Your task to perform on an android device: turn off sleep mode Image 0: 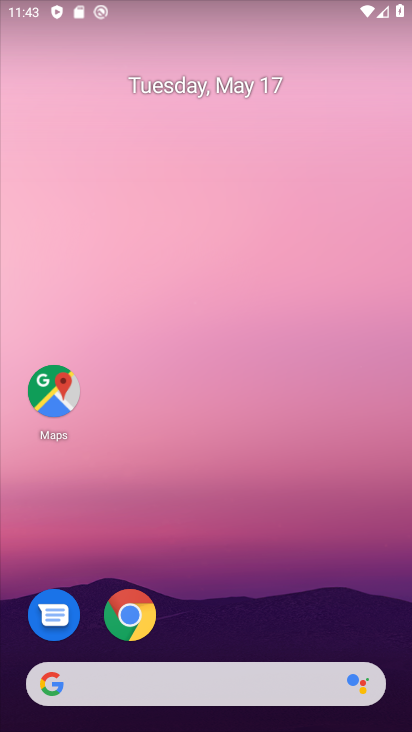
Step 0: drag from (223, 689) to (281, 135)
Your task to perform on an android device: turn off sleep mode Image 1: 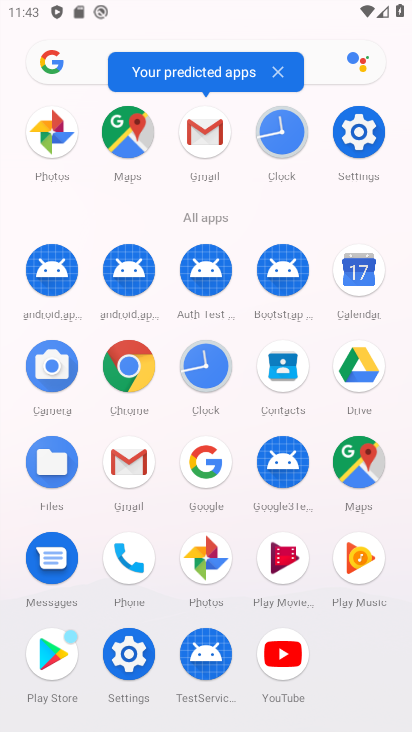
Step 1: click (349, 161)
Your task to perform on an android device: turn off sleep mode Image 2: 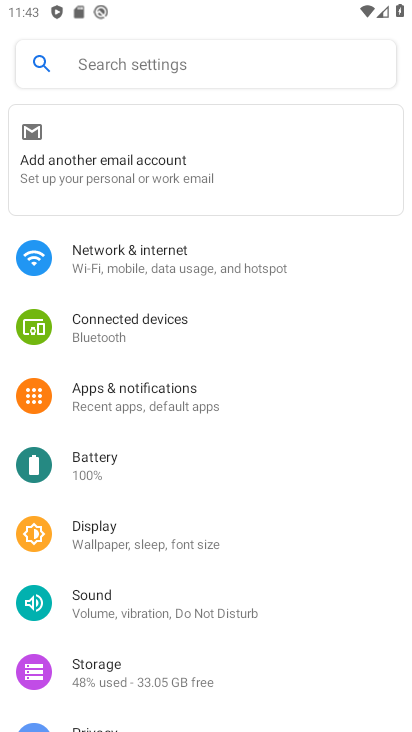
Step 2: click (176, 59)
Your task to perform on an android device: turn off sleep mode Image 3: 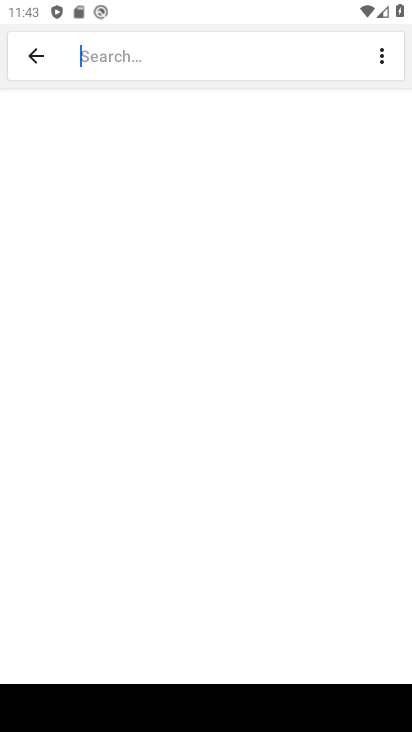
Step 3: drag from (374, 717) to (382, 648)
Your task to perform on an android device: turn off sleep mode Image 4: 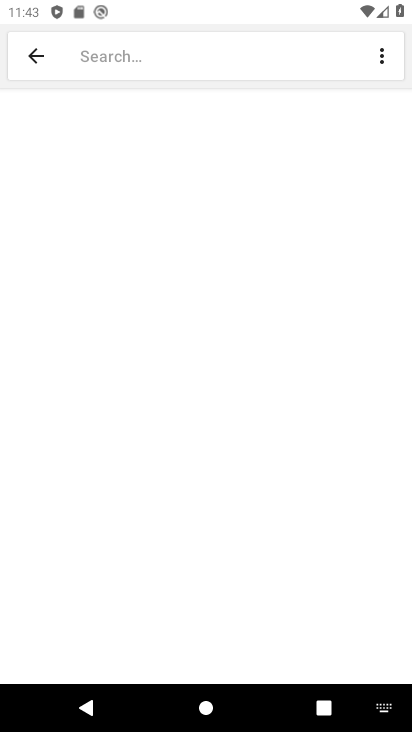
Step 4: click (383, 707)
Your task to perform on an android device: turn off sleep mode Image 5: 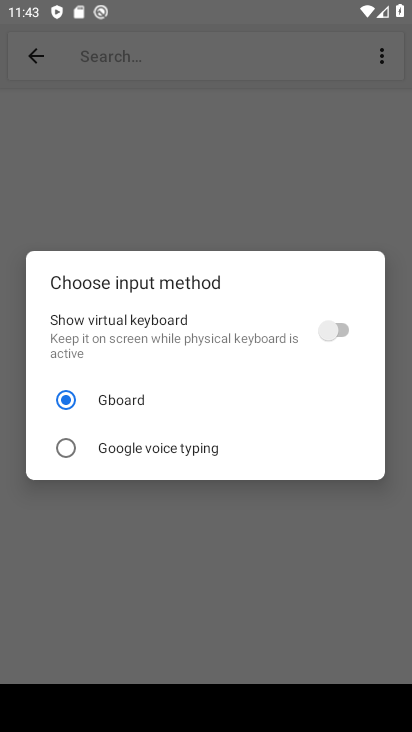
Step 5: click (332, 333)
Your task to perform on an android device: turn off sleep mode Image 6: 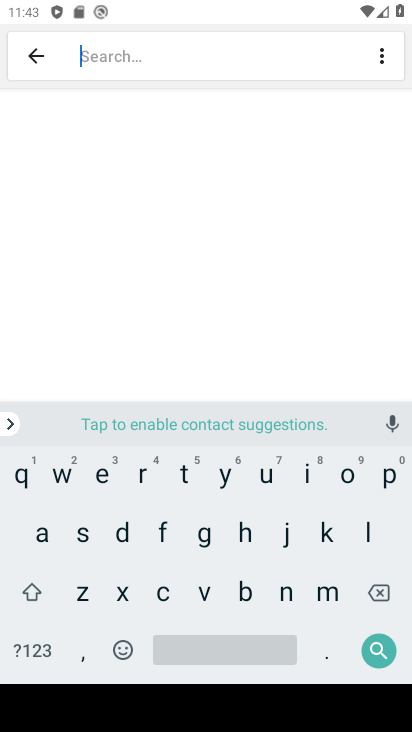
Step 6: click (83, 529)
Your task to perform on an android device: turn off sleep mode Image 7: 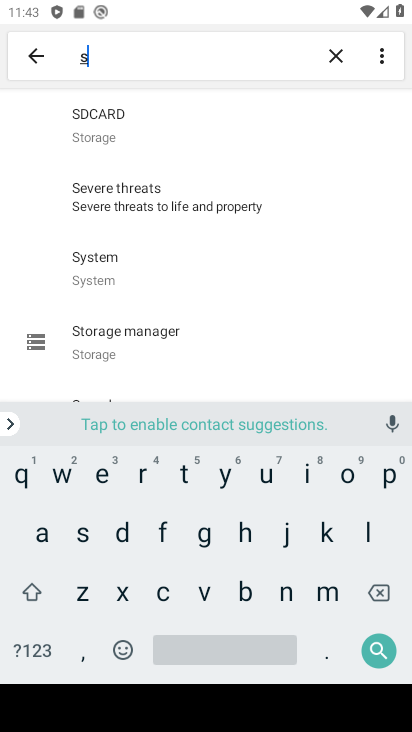
Step 7: click (354, 535)
Your task to perform on an android device: turn off sleep mode Image 8: 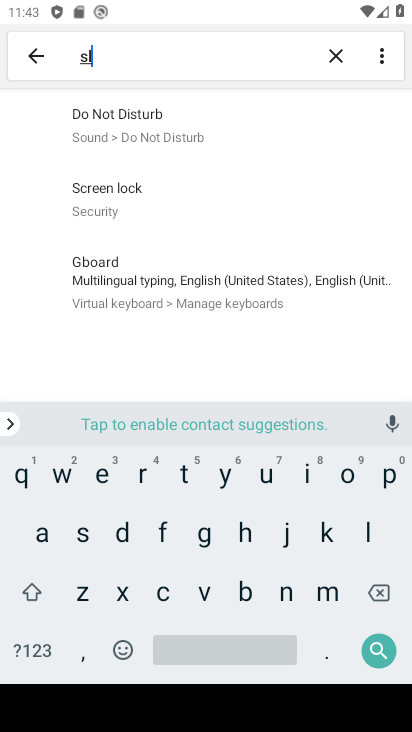
Step 8: click (91, 476)
Your task to perform on an android device: turn off sleep mode Image 9: 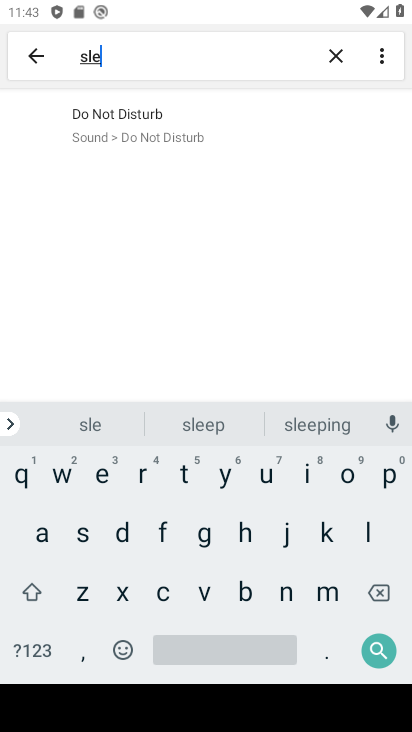
Step 9: click (171, 140)
Your task to perform on an android device: turn off sleep mode Image 10: 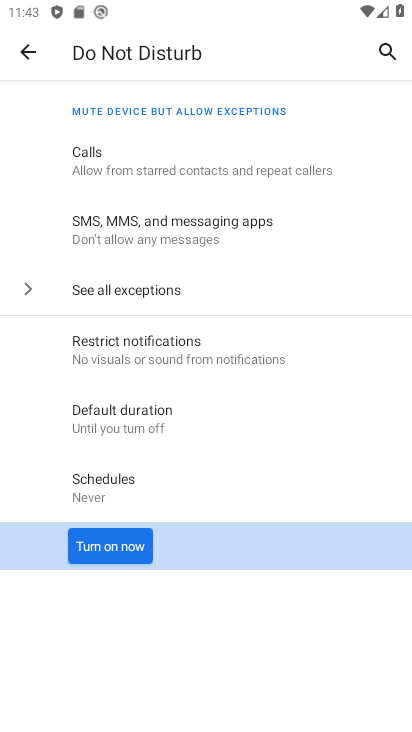
Step 10: click (83, 561)
Your task to perform on an android device: turn off sleep mode Image 11: 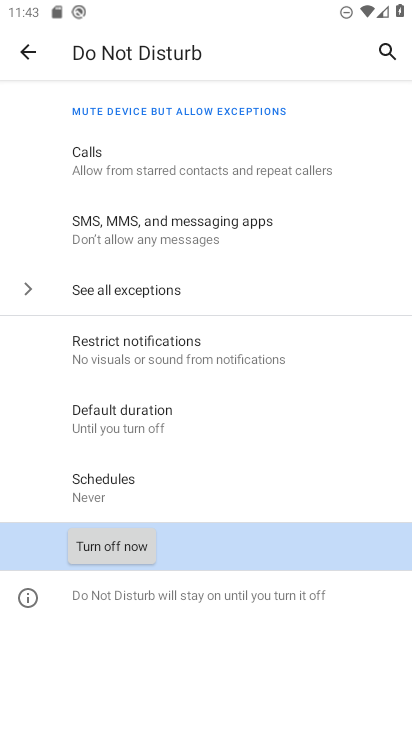
Step 11: click (83, 561)
Your task to perform on an android device: turn off sleep mode Image 12: 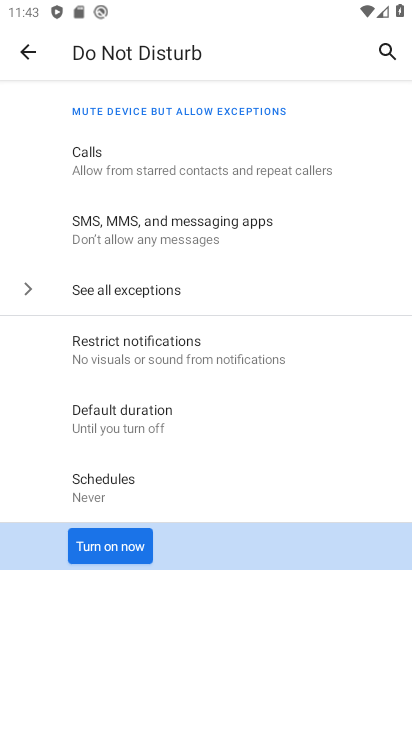
Step 12: task complete